Your task to perform on an android device: Is it going to rain tomorrow? Image 0: 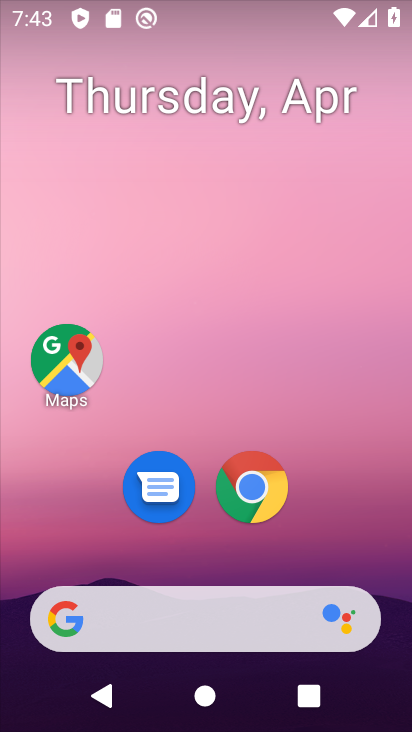
Step 0: click (210, 617)
Your task to perform on an android device: Is it going to rain tomorrow? Image 1: 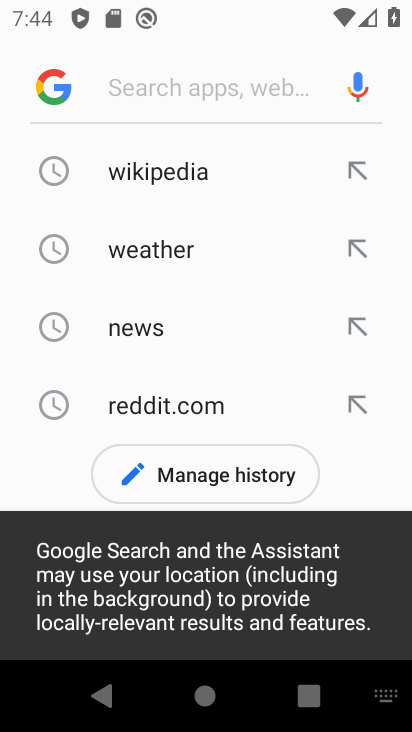
Step 1: click (182, 238)
Your task to perform on an android device: Is it going to rain tomorrow? Image 2: 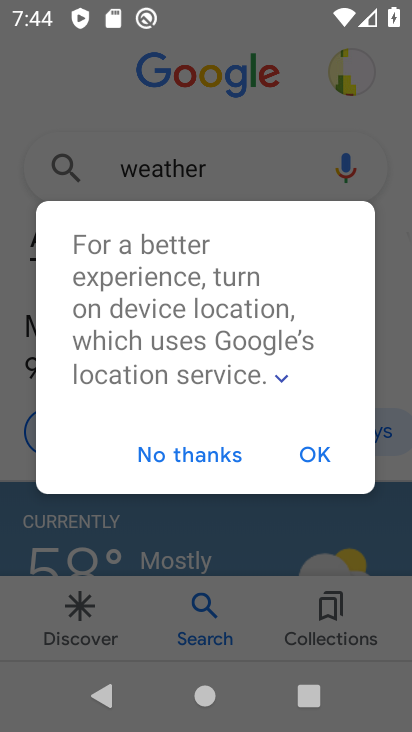
Step 2: click (222, 455)
Your task to perform on an android device: Is it going to rain tomorrow? Image 3: 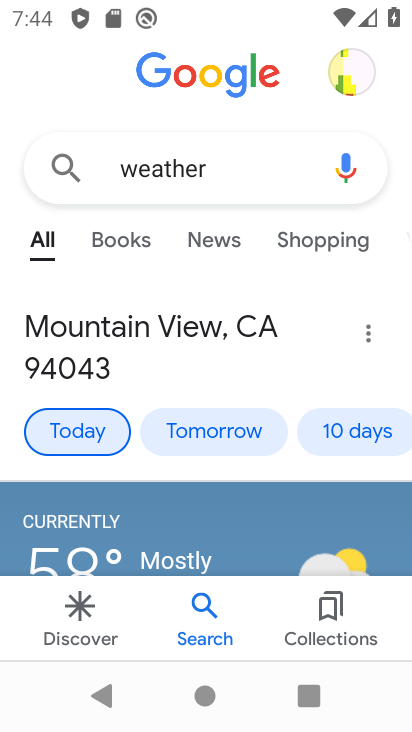
Step 3: click (220, 430)
Your task to perform on an android device: Is it going to rain tomorrow? Image 4: 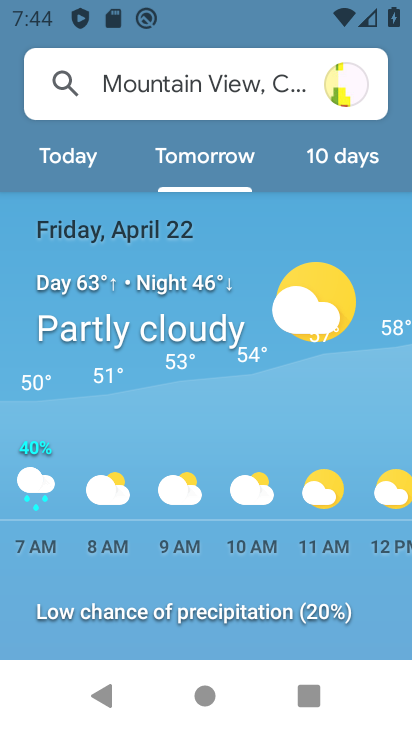
Step 4: task complete